Your task to perform on an android device: Open notification settings Image 0: 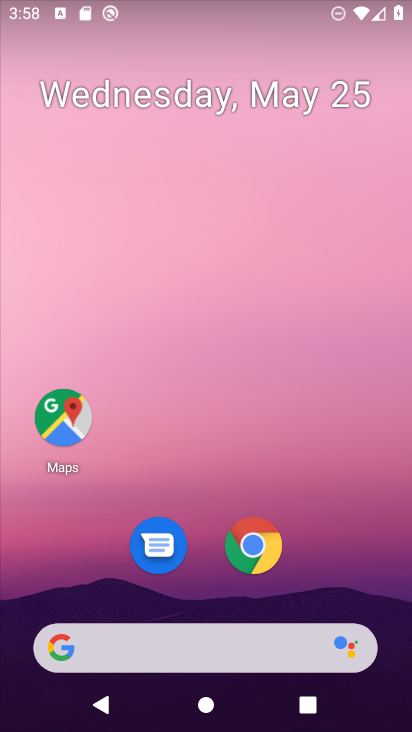
Step 0: drag from (339, 569) to (347, 13)
Your task to perform on an android device: Open notification settings Image 1: 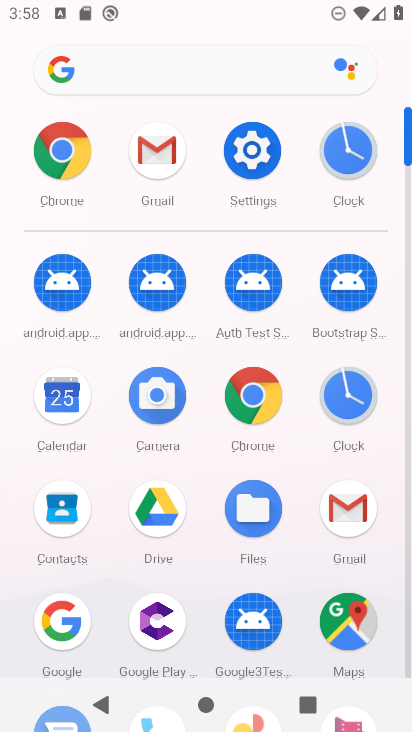
Step 1: click (268, 229)
Your task to perform on an android device: Open notification settings Image 2: 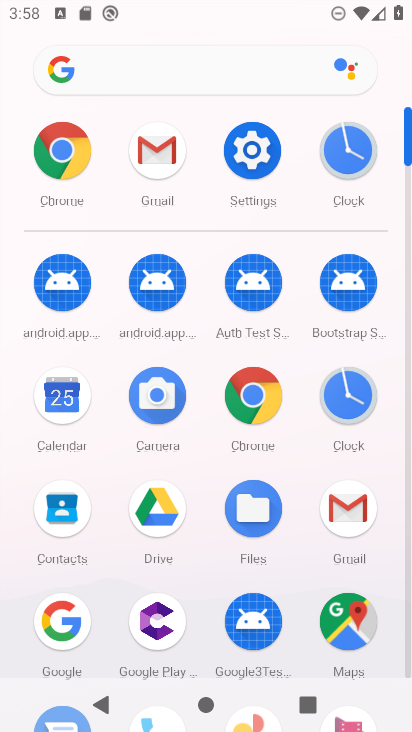
Step 2: click (261, 191)
Your task to perform on an android device: Open notification settings Image 3: 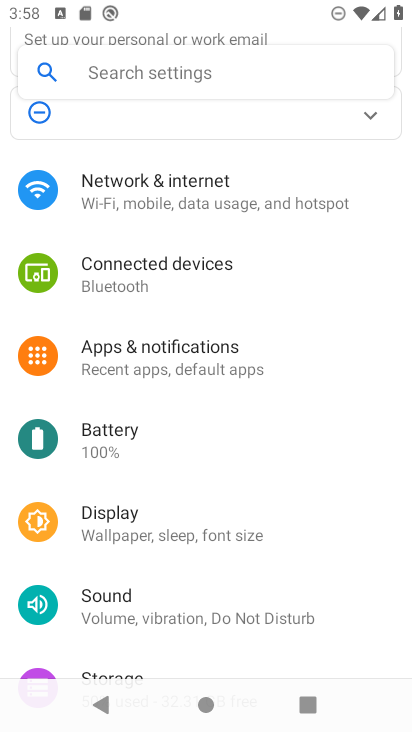
Step 3: click (191, 361)
Your task to perform on an android device: Open notification settings Image 4: 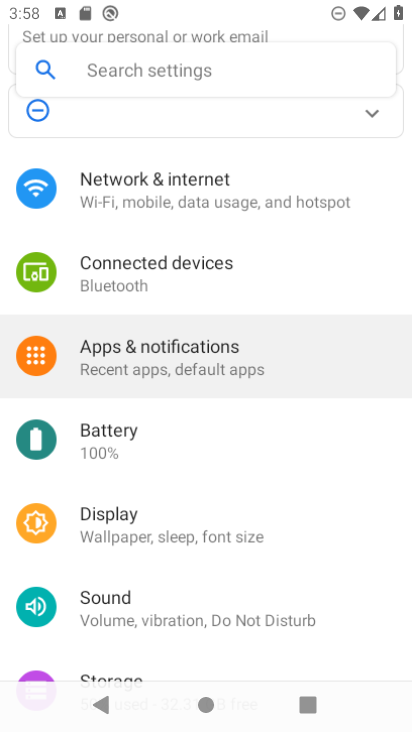
Step 4: task complete